Your task to perform on an android device: change notification settings in the gmail app Image 0: 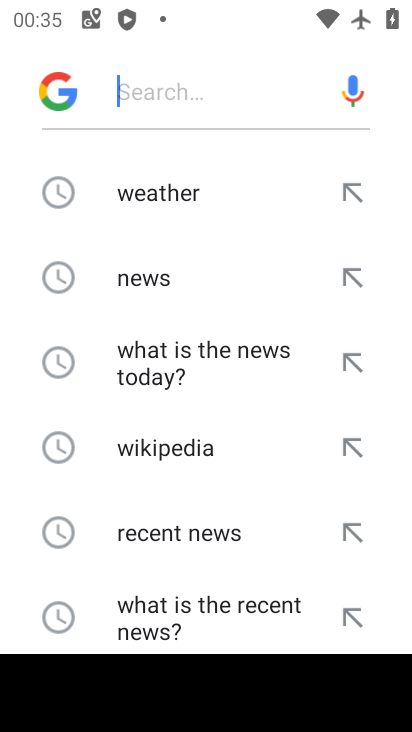
Step 0: press home button
Your task to perform on an android device: change notification settings in the gmail app Image 1: 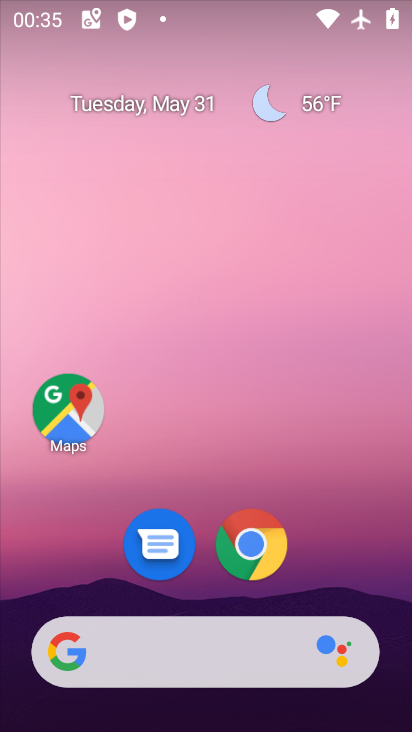
Step 1: drag from (260, 445) to (156, 17)
Your task to perform on an android device: change notification settings in the gmail app Image 2: 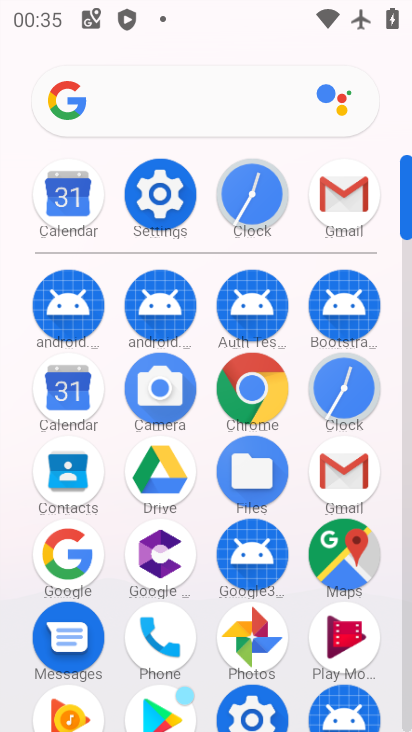
Step 2: click (336, 208)
Your task to perform on an android device: change notification settings in the gmail app Image 3: 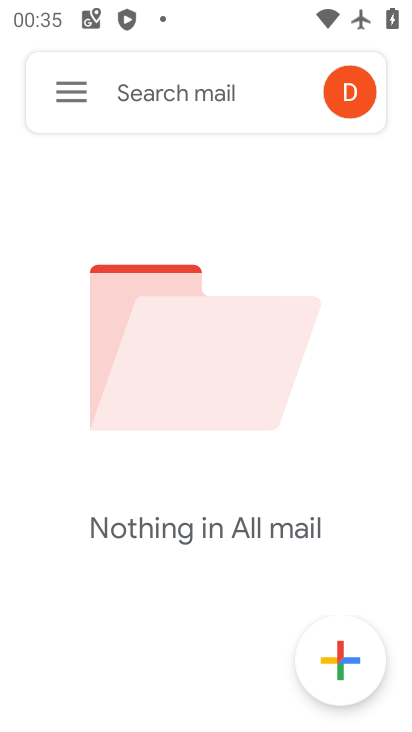
Step 3: click (66, 83)
Your task to perform on an android device: change notification settings in the gmail app Image 4: 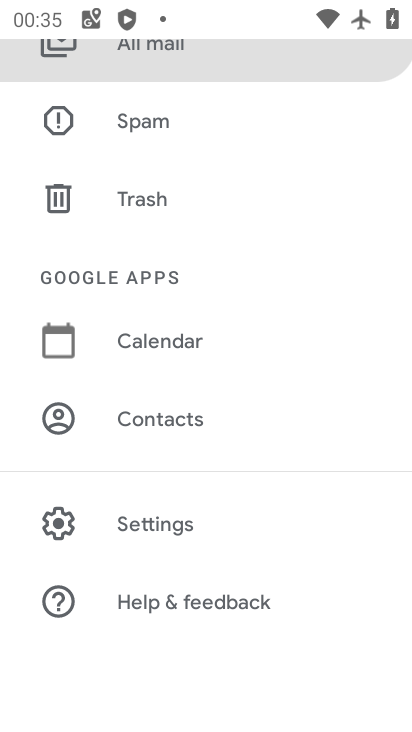
Step 4: click (161, 524)
Your task to perform on an android device: change notification settings in the gmail app Image 5: 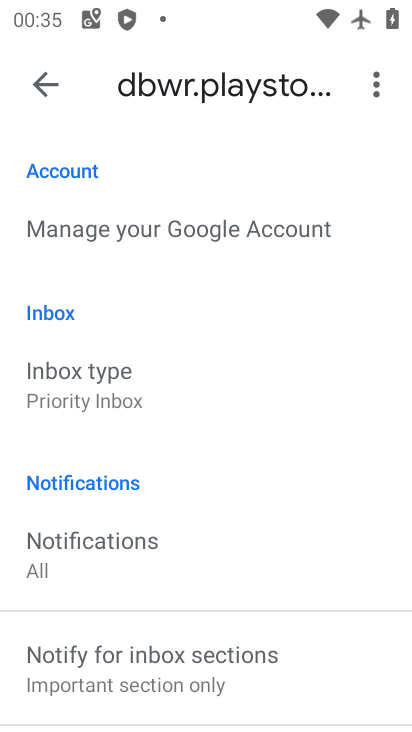
Step 5: click (43, 78)
Your task to perform on an android device: change notification settings in the gmail app Image 6: 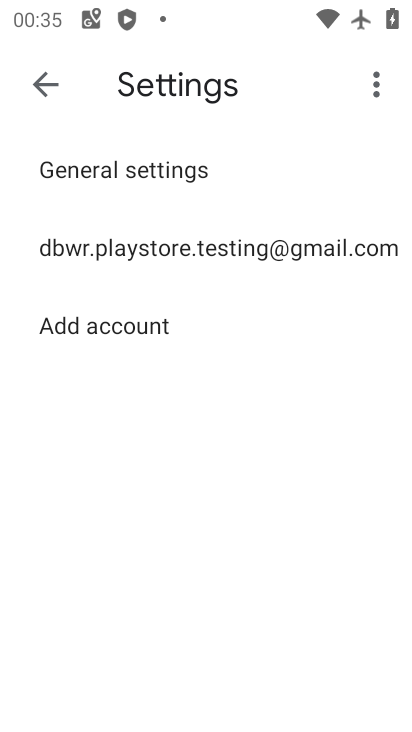
Step 6: click (102, 165)
Your task to perform on an android device: change notification settings in the gmail app Image 7: 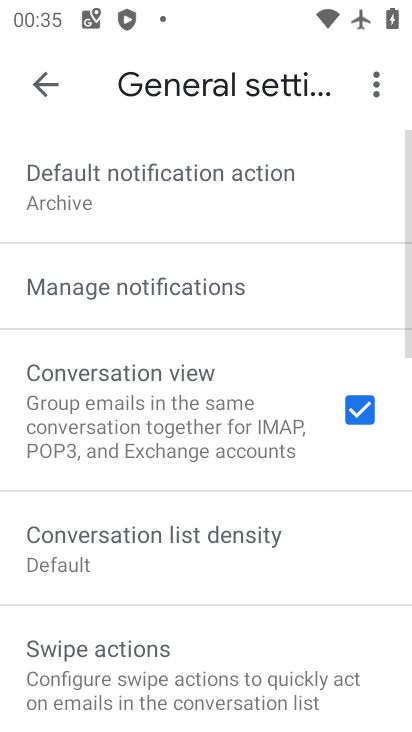
Step 7: click (141, 292)
Your task to perform on an android device: change notification settings in the gmail app Image 8: 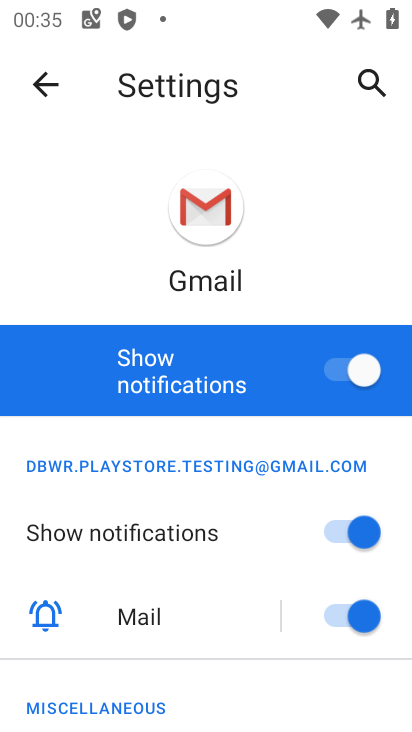
Step 8: click (362, 382)
Your task to perform on an android device: change notification settings in the gmail app Image 9: 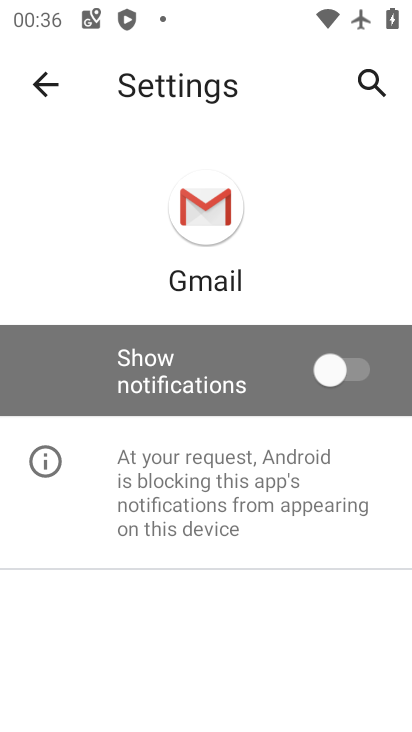
Step 9: task complete